Your task to perform on an android device: What's the weather going to be tomorrow? Image 0: 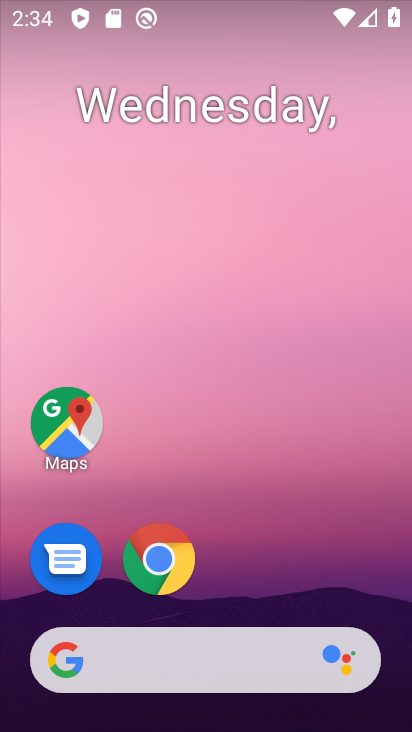
Step 0: click (166, 661)
Your task to perform on an android device: What's the weather going to be tomorrow? Image 1: 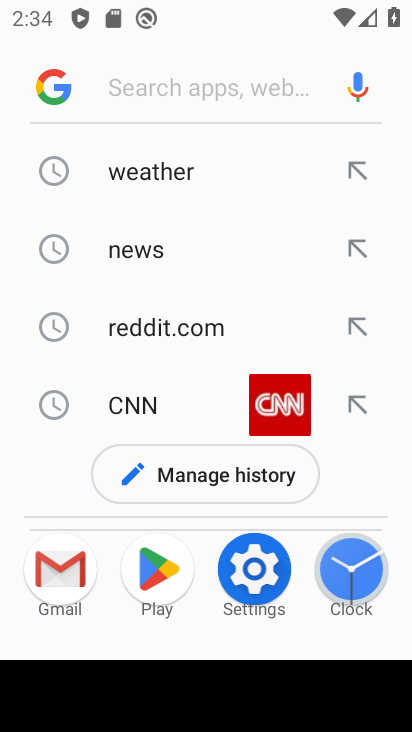
Step 1: click (145, 186)
Your task to perform on an android device: What's the weather going to be tomorrow? Image 2: 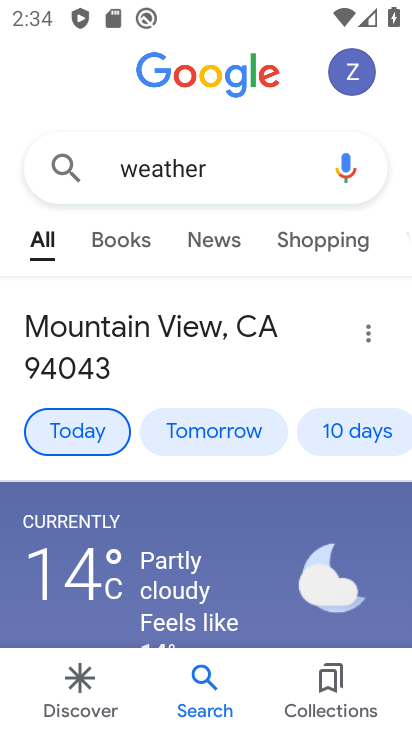
Step 2: click (208, 435)
Your task to perform on an android device: What's the weather going to be tomorrow? Image 3: 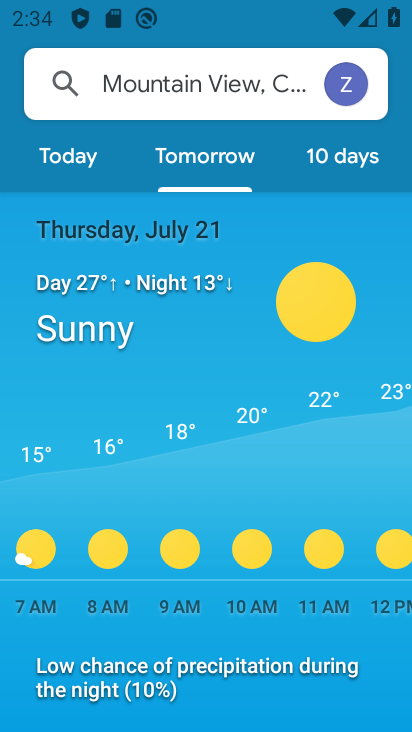
Step 3: task complete